Your task to perform on an android device: toggle data saver in the chrome app Image 0: 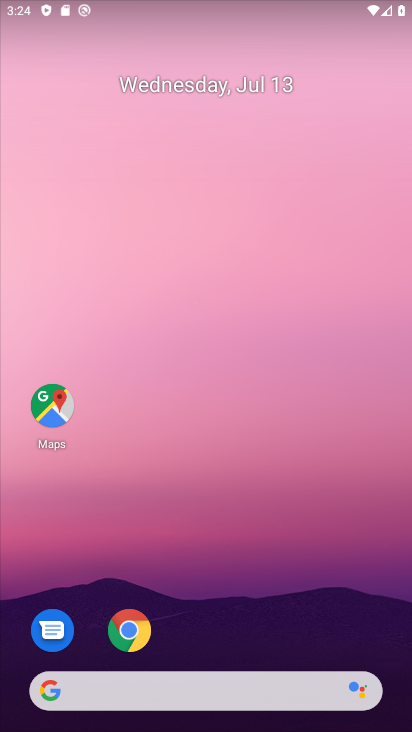
Step 0: click (127, 630)
Your task to perform on an android device: toggle data saver in the chrome app Image 1: 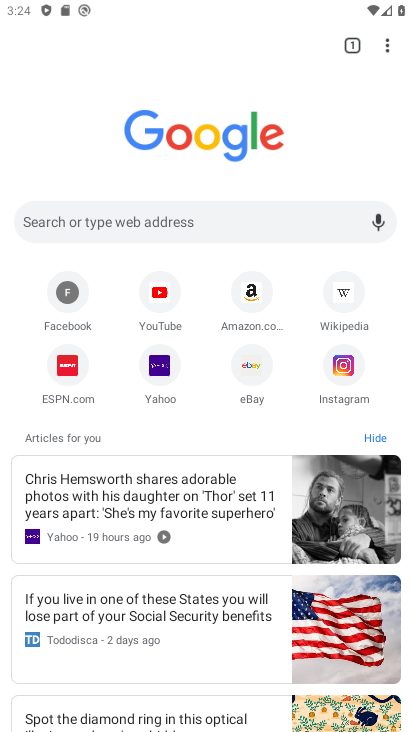
Step 1: click (390, 41)
Your task to perform on an android device: toggle data saver in the chrome app Image 2: 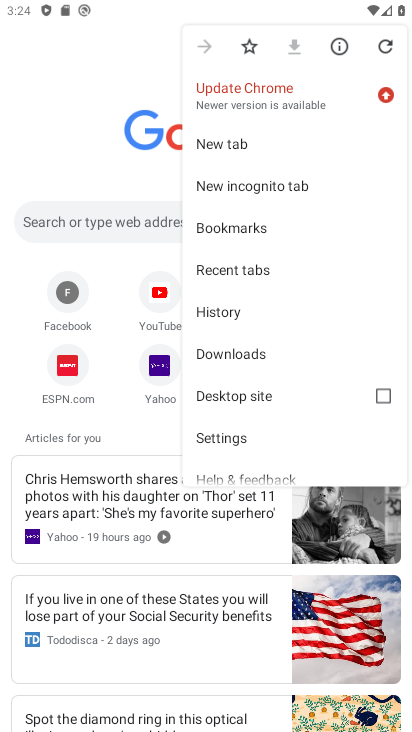
Step 2: click (229, 437)
Your task to perform on an android device: toggle data saver in the chrome app Image 3: 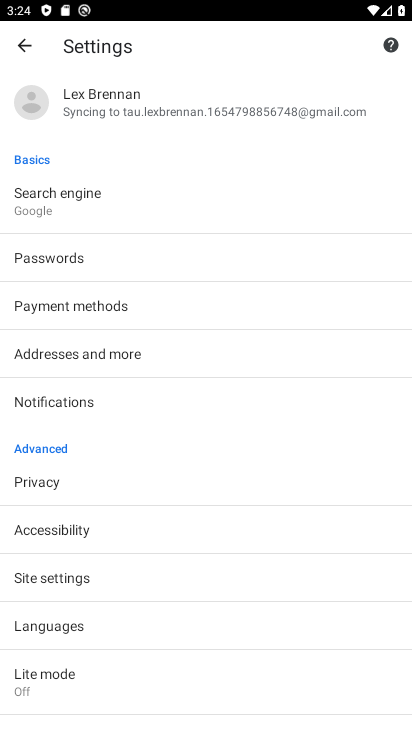
Step 3: click (49, 669)
Your task to perform on an android device: toggle data saver in the chrome app Image 4: 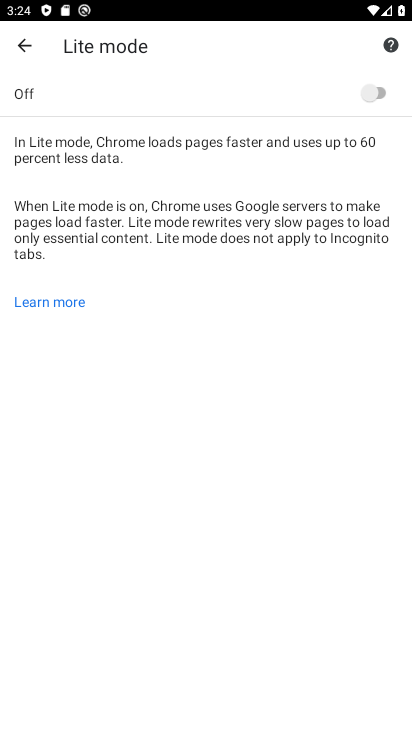
Step 4: click (372, 88)
Your task to perform on an android device: toggle data saver in the chrome app Image 5: 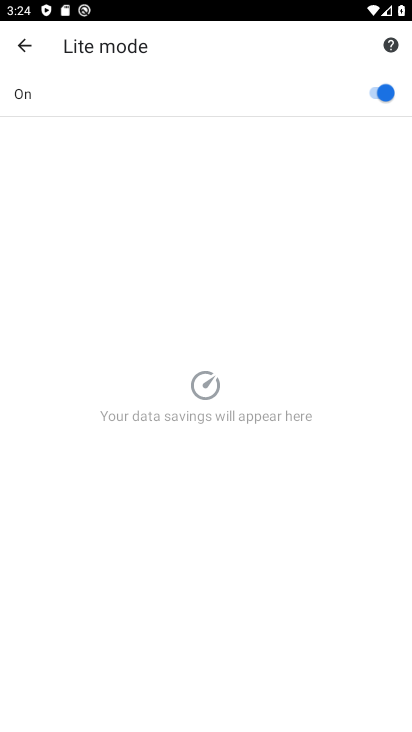
Step 5: task complete